Your task to perform on an android device: change notification settings in the gmail app Image 0: 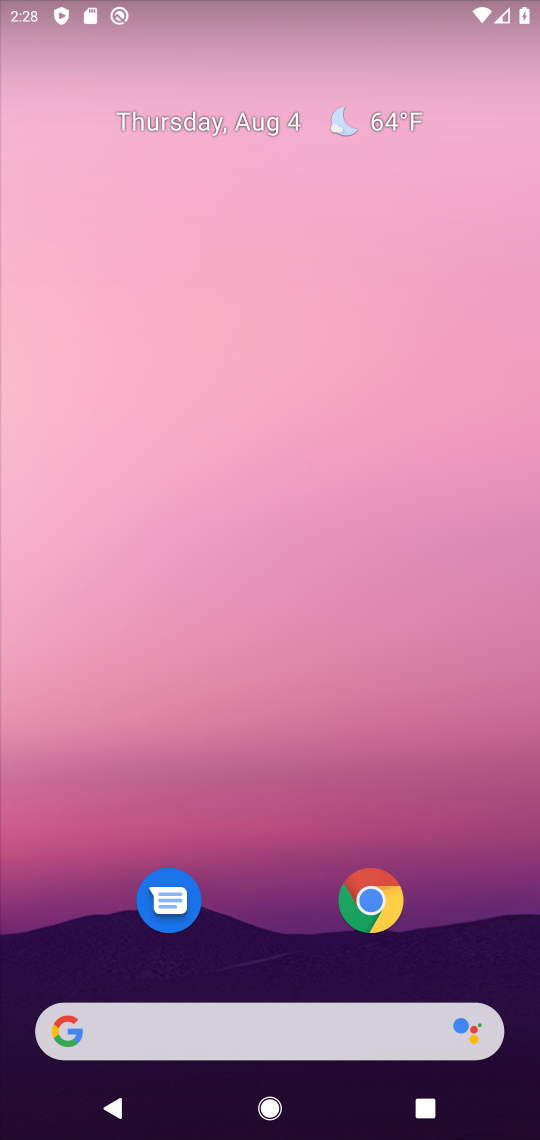
Step 0: drag from (500, 961) to (400, 213)
Your task to perform on an android device: change notification settings in the gmail app Image 1: 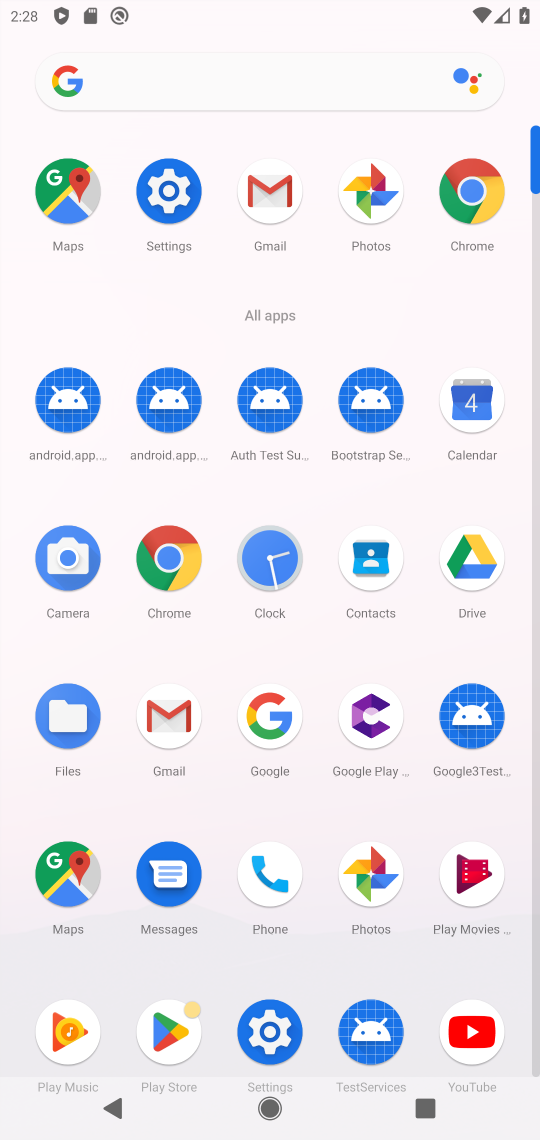
Step 1: click (265, 178)
Your task to perform on an android device: change notification settings in the gmail app Image 2: 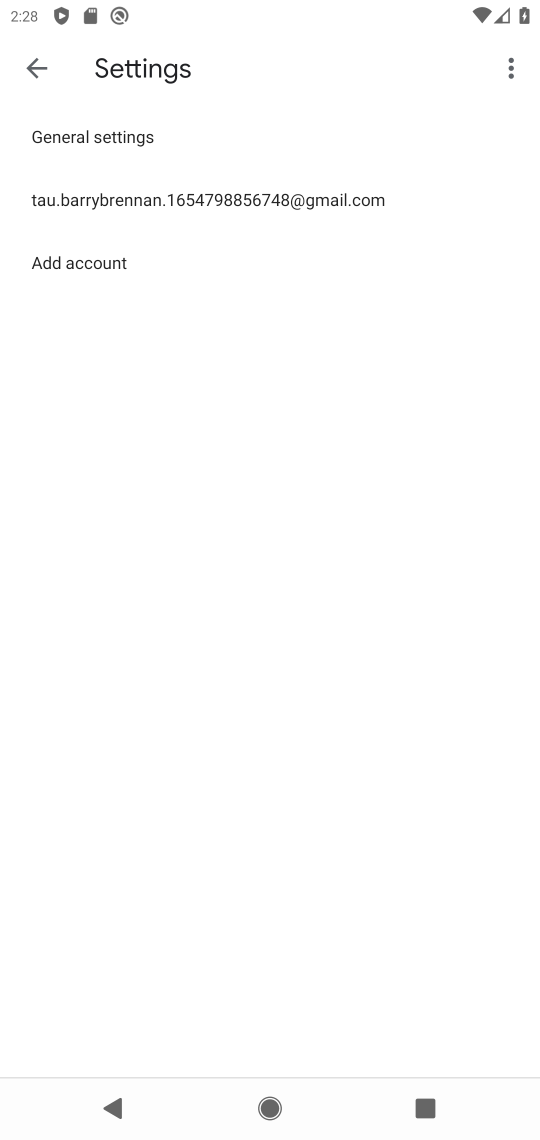
Step 2: click (320, 209)
Your task to perform on an android device: change notification settings in the gmail app Image 3: 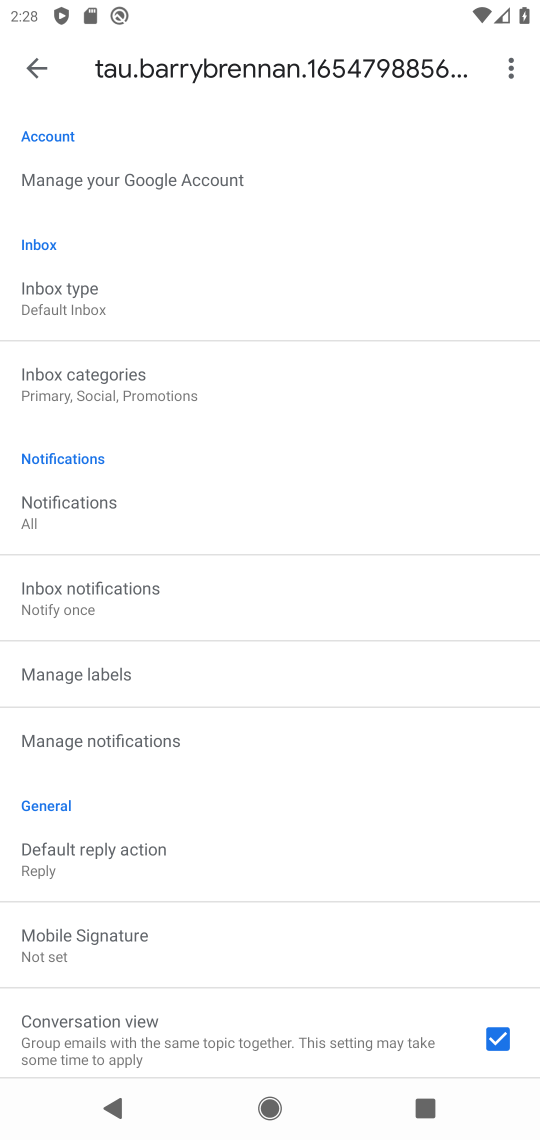
Step 3: click (220, 738)
Your task to perform on an android device: change notification settings in the gmail app Image 4: 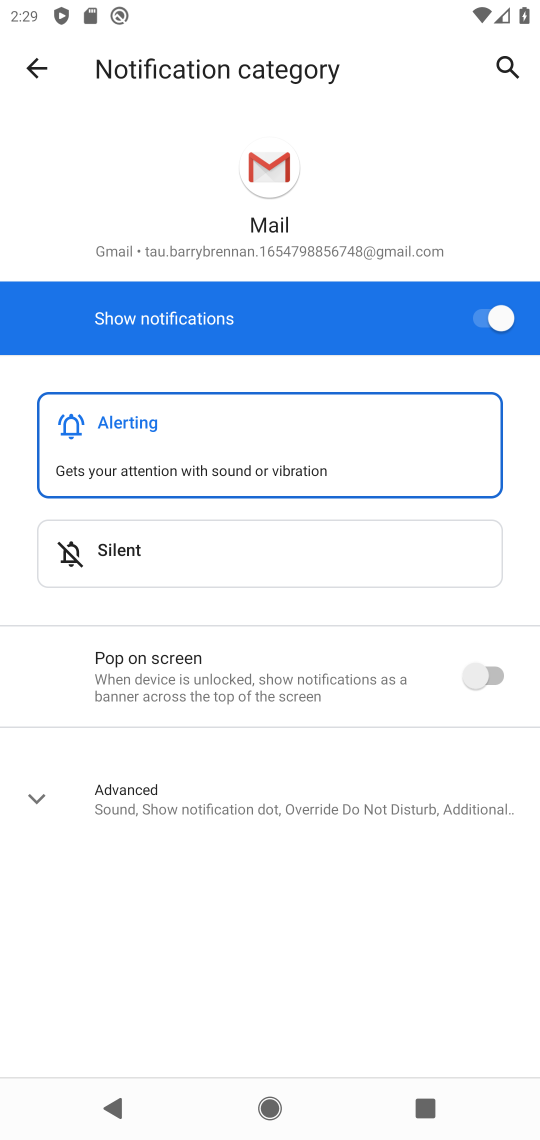
Step 4: click (500, 682)
Your task to perform on an android device: change notification settings in the gmail app Image 5: 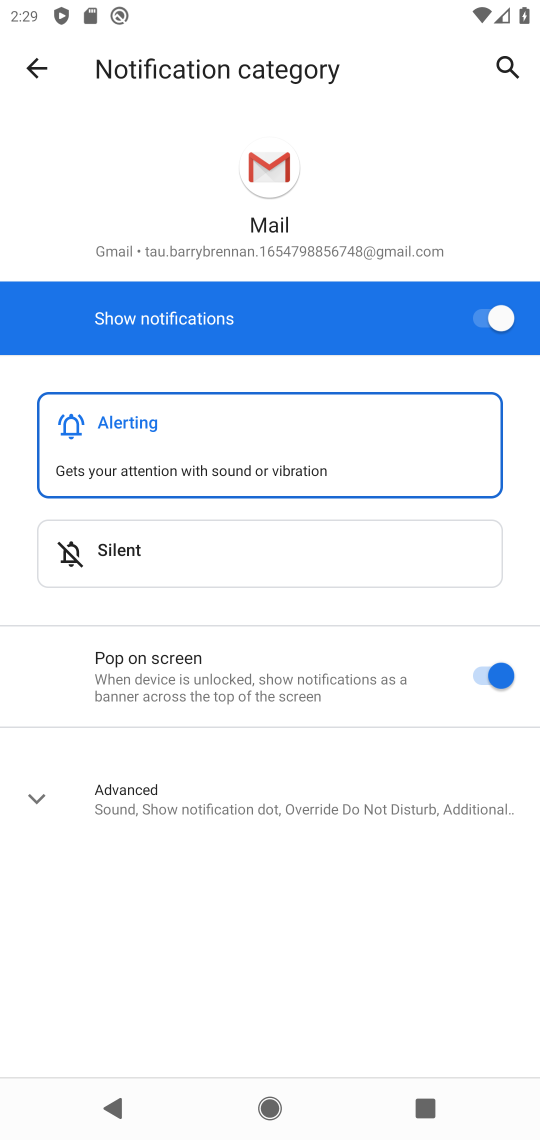
Step 5: click (456, 804)
Your task to perform on an android device: change notification settings in the gmail app Image 6: 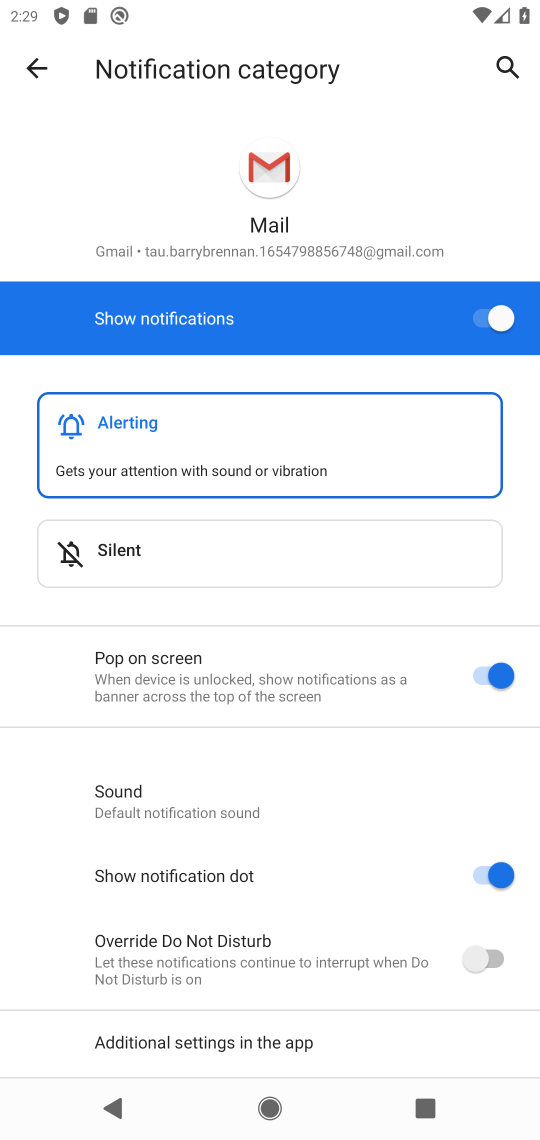
Step 6: click (494, 956)
Your task to perform on an android device: change notification settings in the gmail app Image 7: 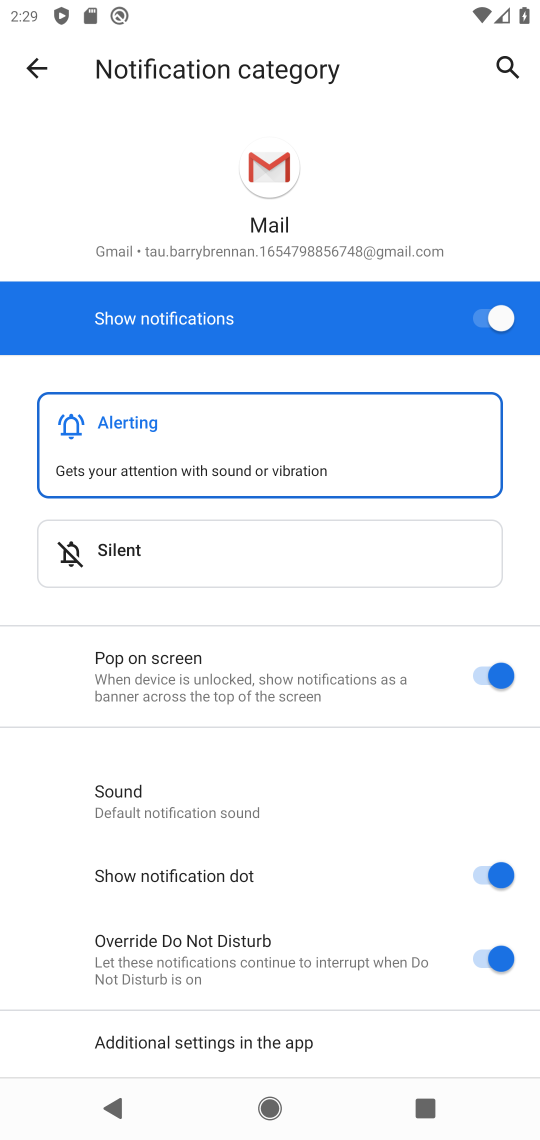
Step 7: click (480, 873)
Your task to perform on an android device: change notification settings in the gmail app Image 8: 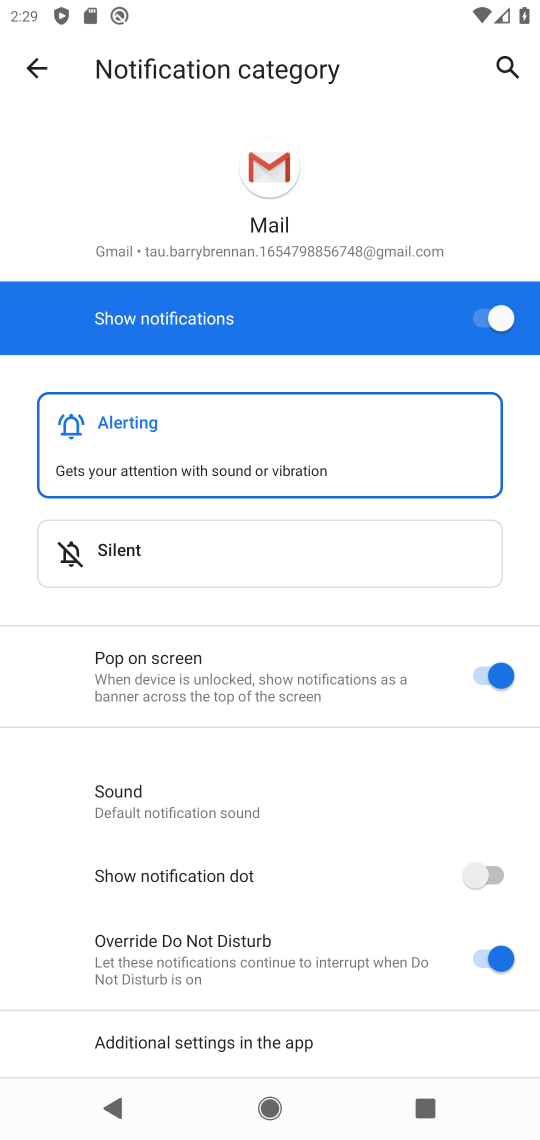
Step 8: task complete